Your task to perform on an android device: open chrome privacy settings Image 0: 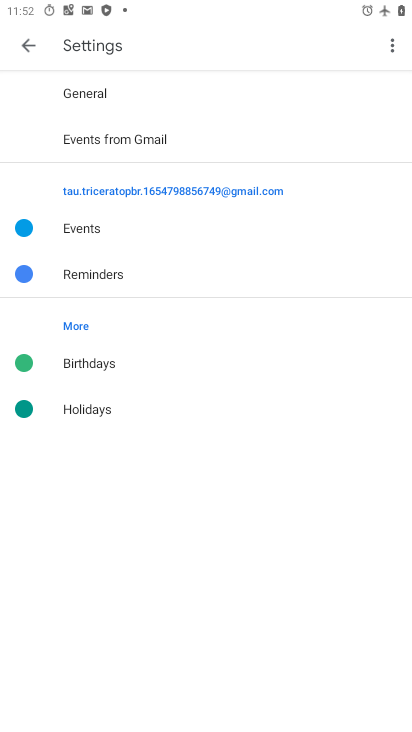
Step 0: press home button
Your task to perform on an android device: open chrome privacy settings Image 1: 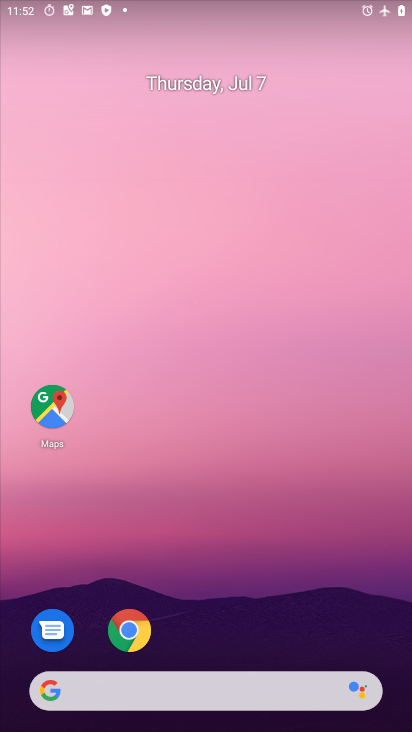
Step 1: click (141, 626)
Your task to perform on an android device: open chrome privacy settings Image 2: 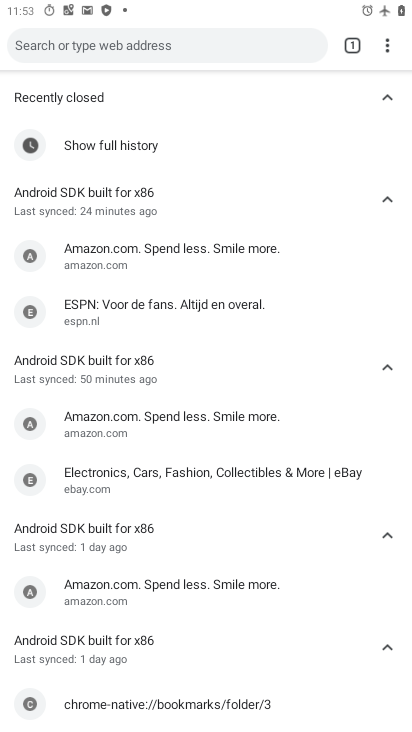
Step 2: click (387, 54)
Your task to perform on an android device: open chrome privacy settings Image 3: 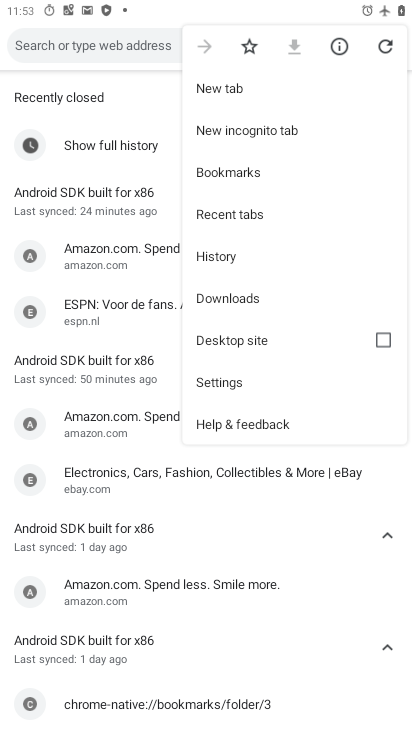
Step 3: click (235, 383)
Your task to perform on an android device: open chrome privacy settings Image 4: 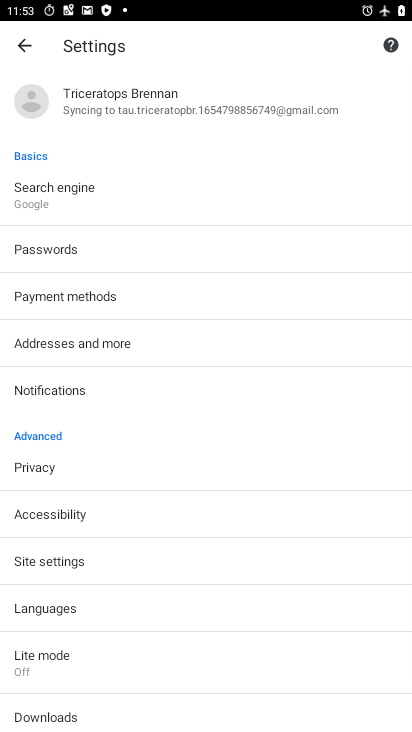
Step 4: click (105, 464)
Your task to perform on an android device: open chrome privacy settings Image 5: 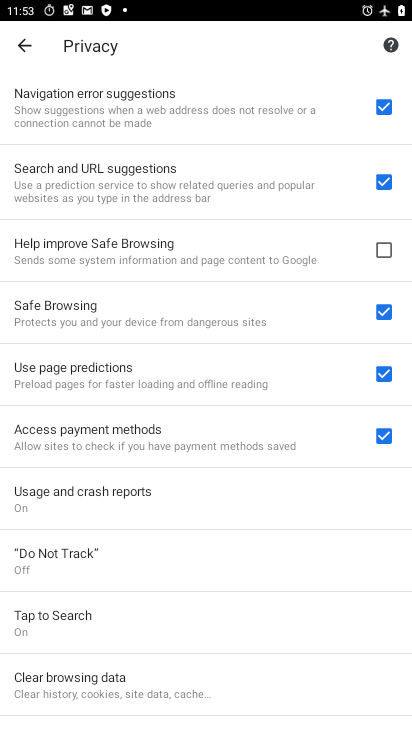
Step 5: task complete